Your task to perform on an android device: add a label to a message in the gmail app Image 0: 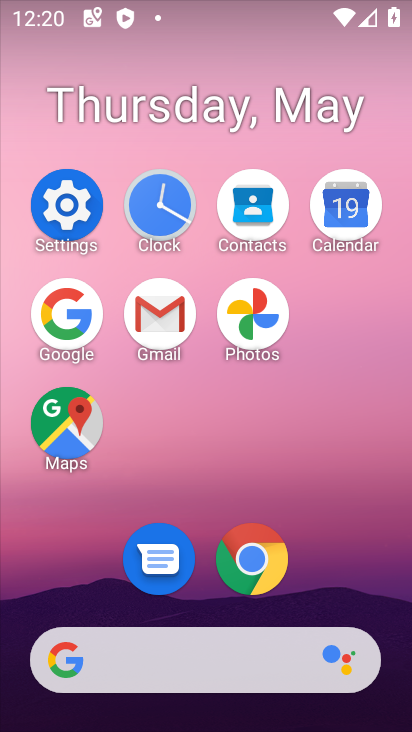
Step 0: click (162, 321)
Your task to perform on an android device: add a label to a message in the gmail app Image 1: 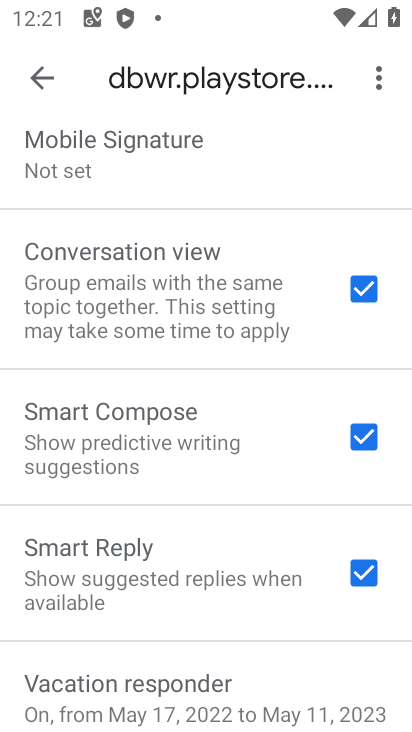
Step 1: click (30, 67)
Your task to perform on an android device: add a label to a message in the gmail app Image 2: 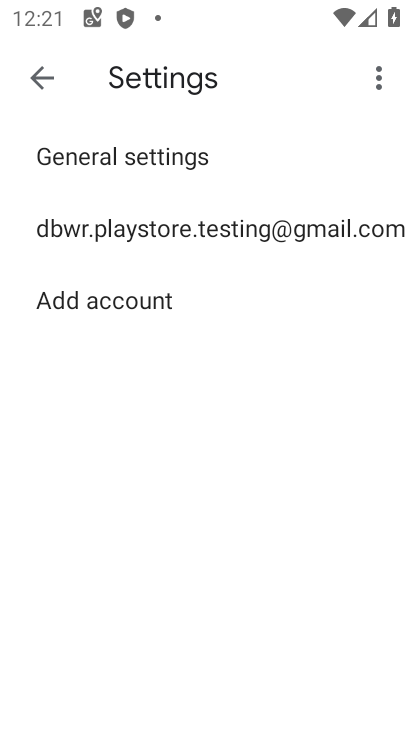
Step 2: click (38, 73)
Your task to perform on an android device: add a label to a message in the gmail app Image 3: 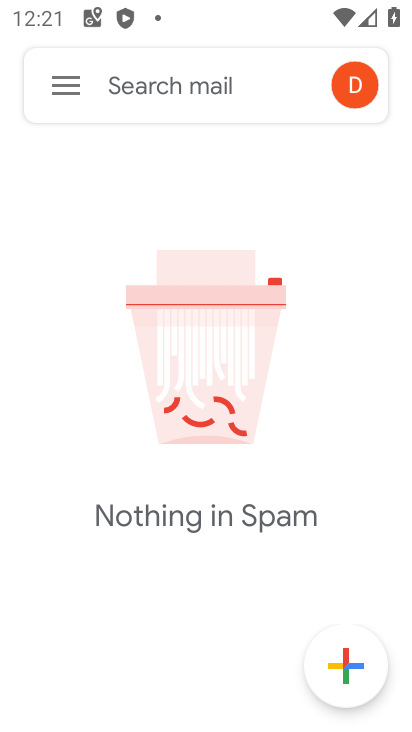
Step 3: click (77, 79)
Your task to perform on an android device: add a label to a message in the gmail app Image 4: 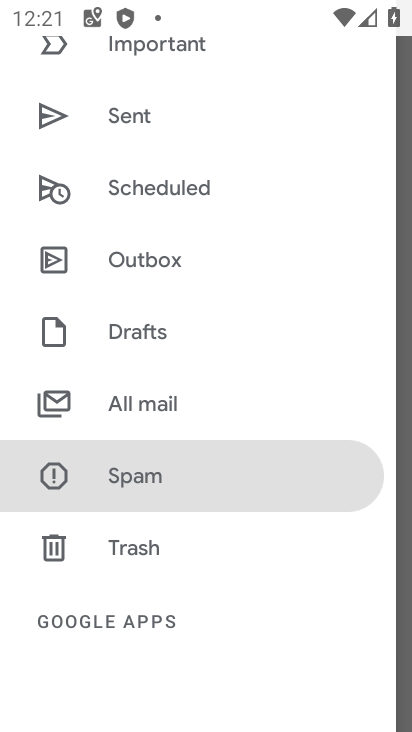
Step 4: click (185, 412)
Your task to perform on an android device: add a label to a message in the gmail app Image 5: 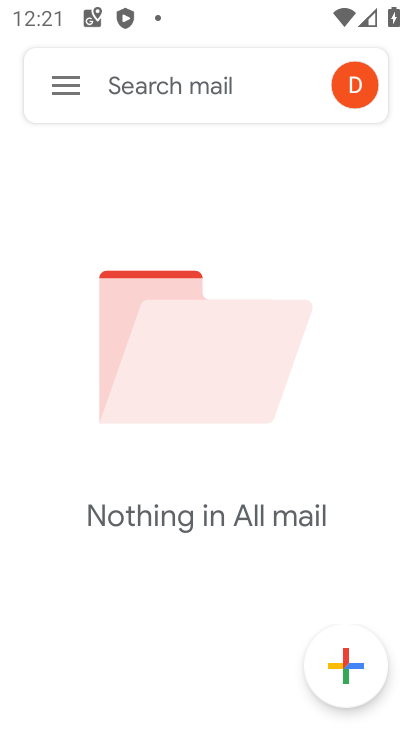
Step 5: task complete